Your task to perform on an android device: Go to Yahoo.com Image 0: 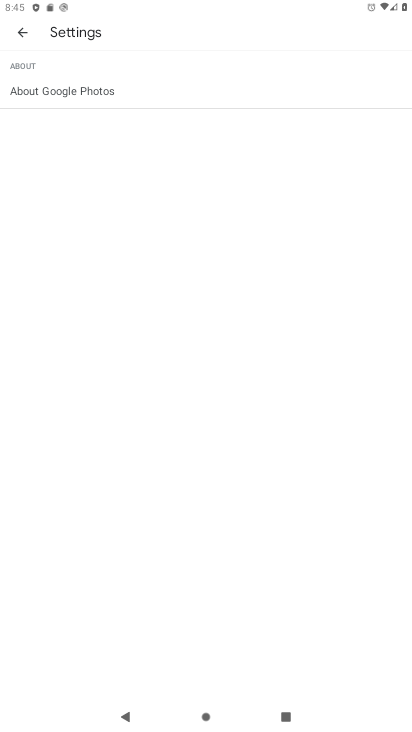
Step 0: press home button
Your task to perform on an android device: Go to Yahoo.com Image 1: 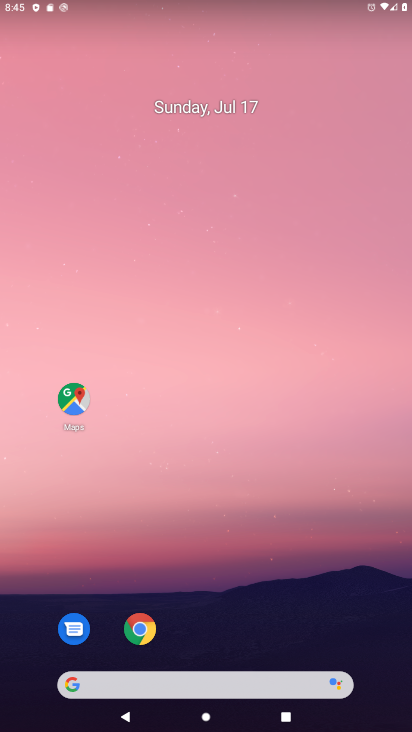
Step 1: click (135, 636)
Your task to perform on an android device: Go to Yahoo.com Image 2: 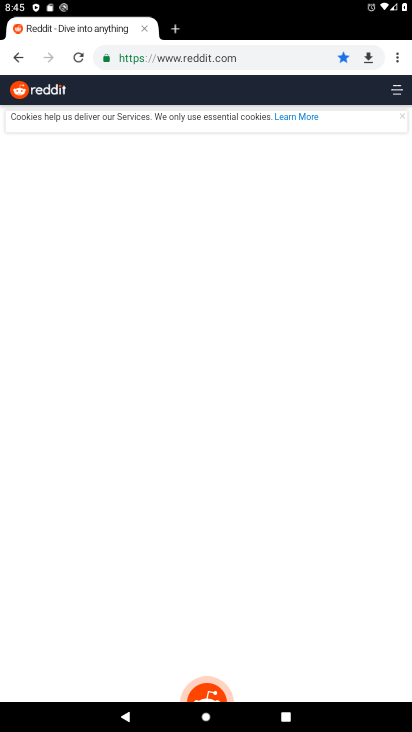
Step 2: click (153, 58)
Your task to perform on an android device: Go to Yahoo.com Image 3: 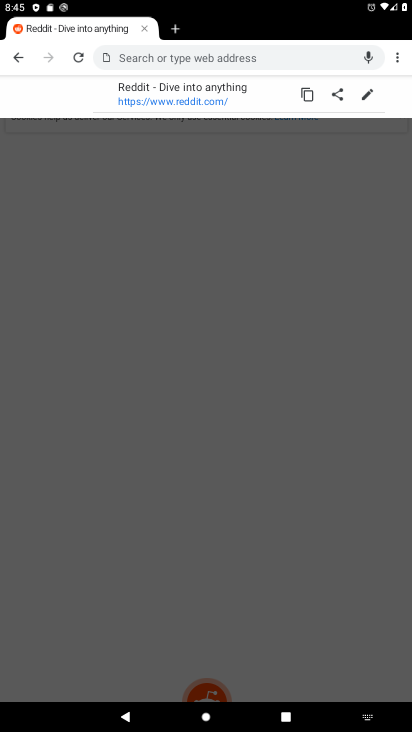
Step 3: type "yahoo.com"
Your task to perform on an android device: Go to Yahoo.com Image 4: 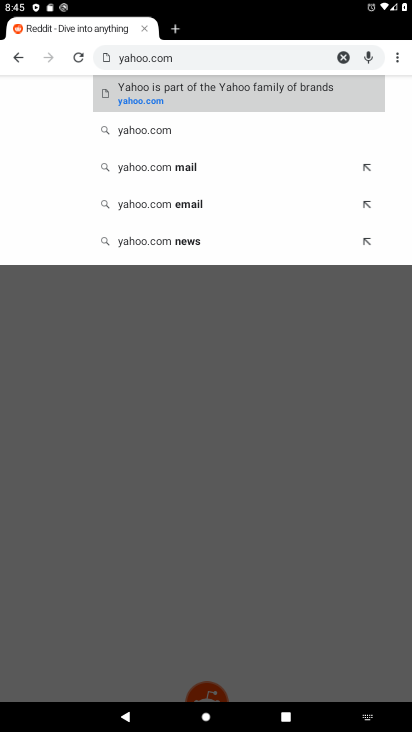
Step 4: click (184, 93)
Your task to perform on an android device: Go to Yahoo.com Image 5: 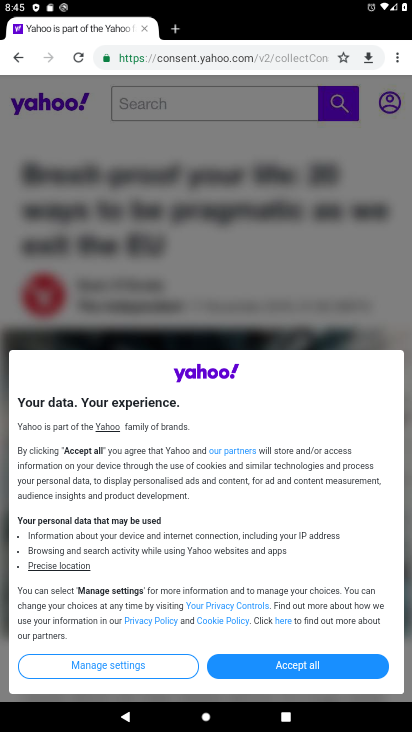
Step 5: task complete